Your task to perform on an android device: turn on the 24-hour format for clock Image 0: 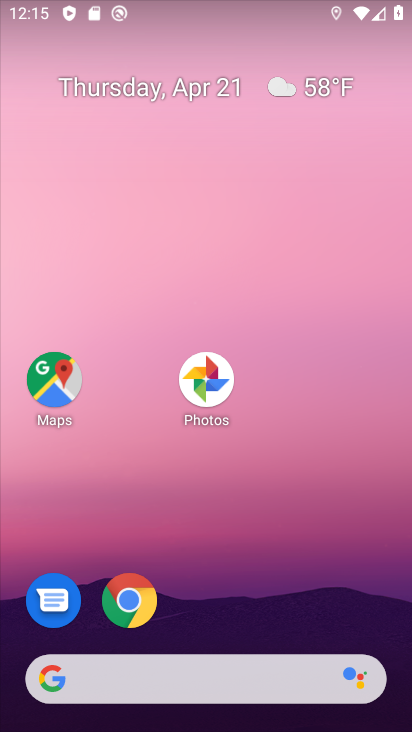
Step 0: drag from (192, 645) to (192, 63)
Your task to perform on an android device: turn on the 24-hour format for clock Image 1: 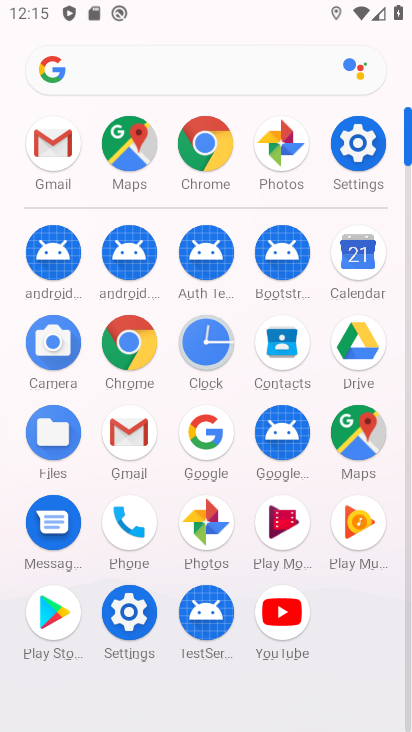
Step 1: click (202, 342)
Your task to perform on an android device: turn on the 24-hour format for clock Image 2: 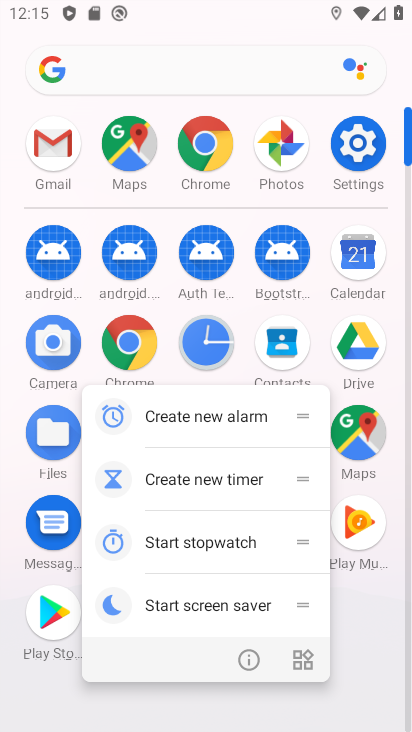
Step 2: click (219, 339)
Your task to perform on an android device: turn on the 24-hour format for clock Image 3: 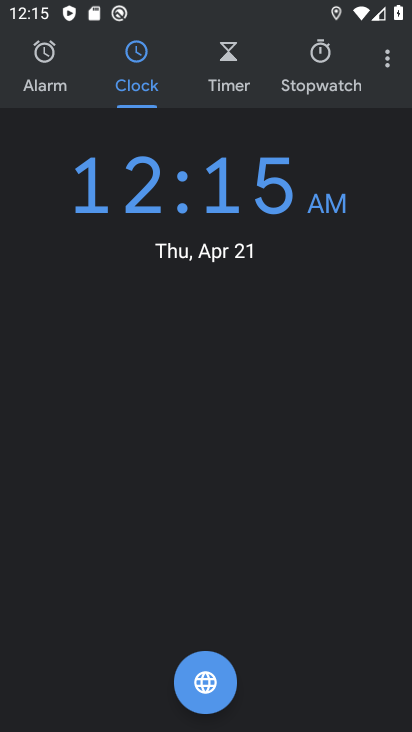
Step 3: click (386, 62)
Your task to perform on an android device: turn on the 24-hour format for clock Image 4: 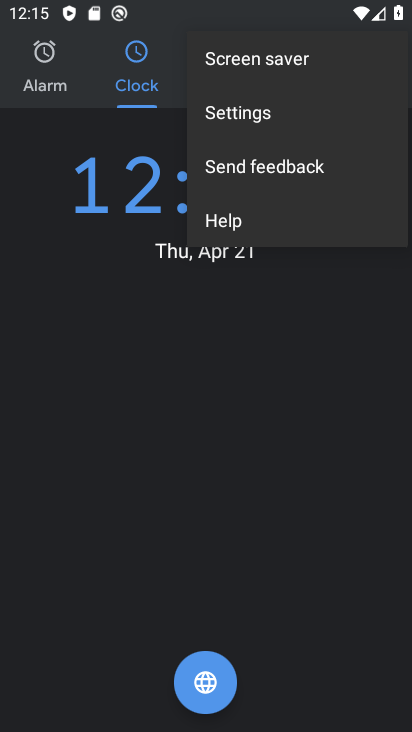
Step 4: click (308, 126)
Your task to perform on an android device: turn on the 24-hour format for clock Image 5: 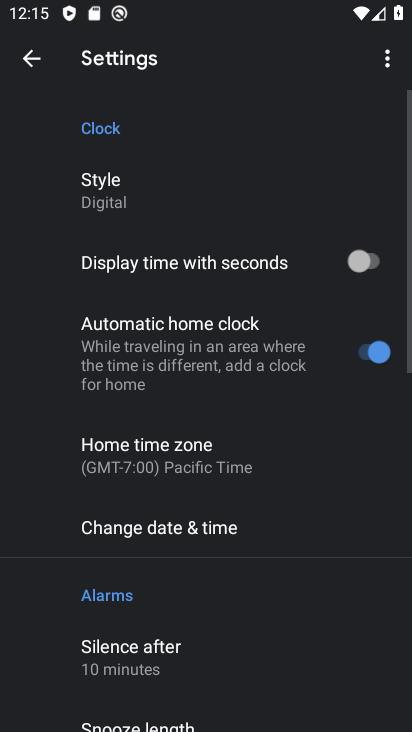
Step 5: drag from (240, 414) to (225, 245)
Your task to perform on an android device: turn on the 24-hour format for clock Image 6: 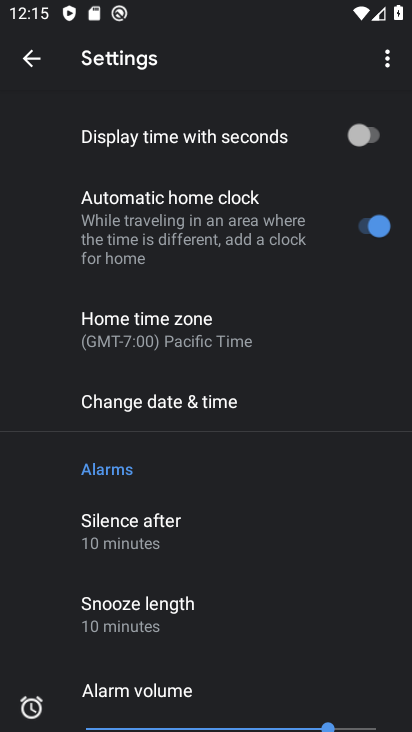
Step 6: click (172, 389)
Your task to perform on an android device: turn on the 24-hour format for clock Image 7: 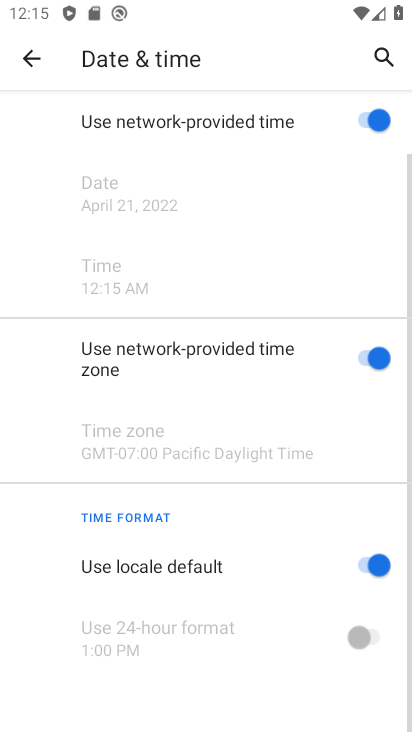
Step 7: drag from (218, 526) to (191, 295)
Your task to perform on an android device: turn on the 24-hour format for clock Image 8: 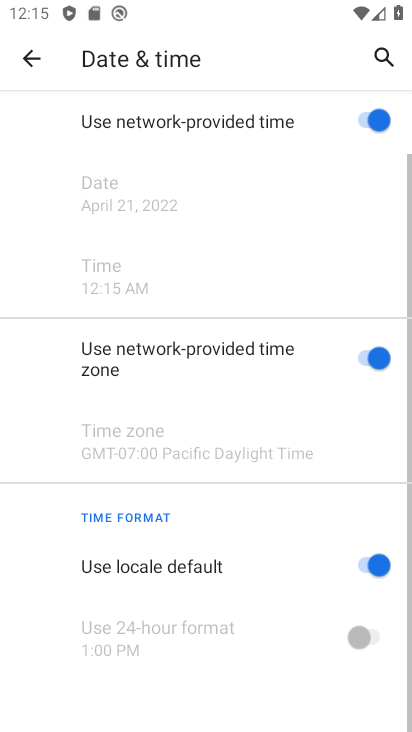
Step 8: click (365, 561)
Your task to perform on an android device: turn on the 24-hour format for clock Image 9: 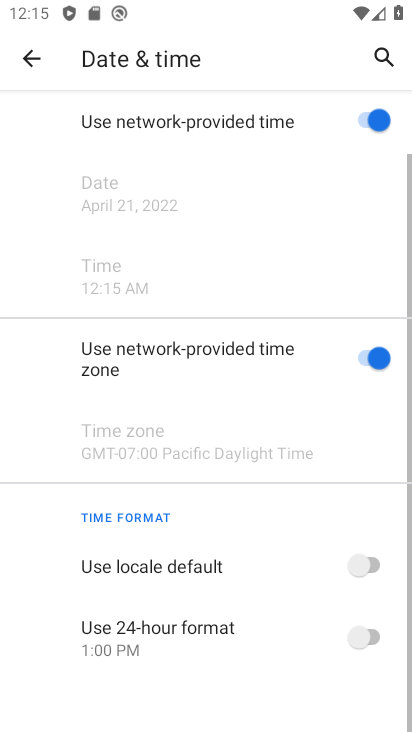
Step 9: click (365, 630)
Your task to perform on an android device: turn on the 24-hour format for clock Image 10: 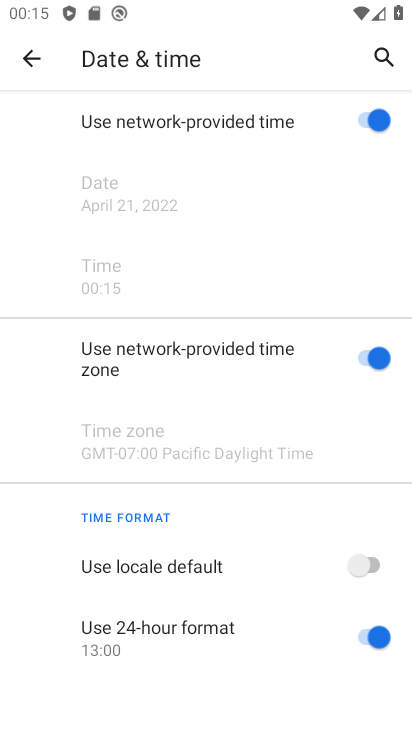
Step 10: task complete